Your task to perform on an android device: change the clock style Image 0: 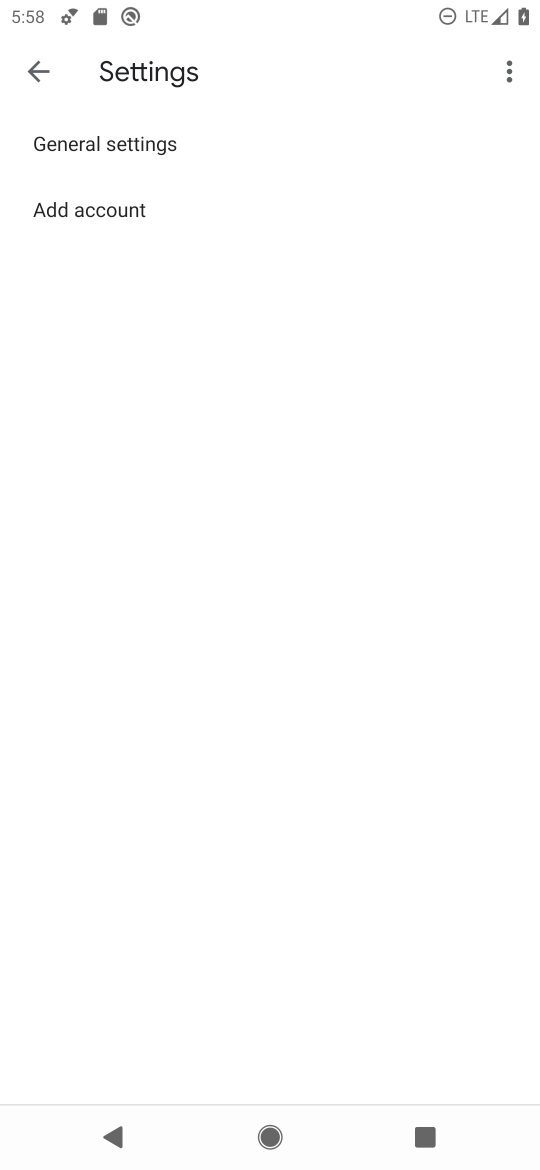
Step 0: press home button
Your task to perform on an android device: change the clock style Image 1: 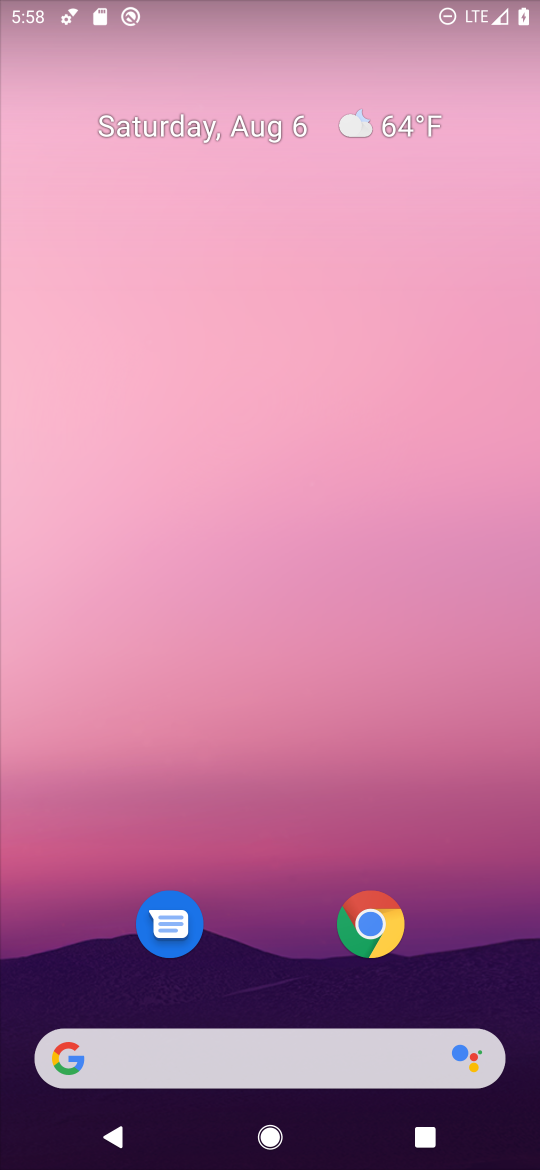
Step 1: drag from (265, 916) to (291, 234)
Your task to perform on an android device: change the clock style Image 2: 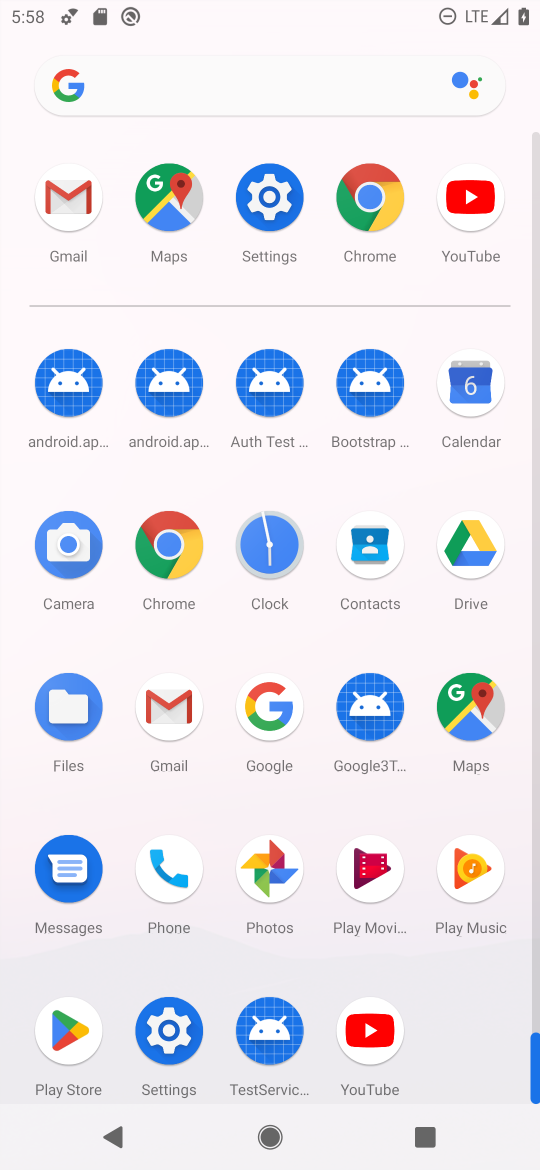
Step 2: click (270, 545)
Your task to perform on an android device: change the clock style Image 3: 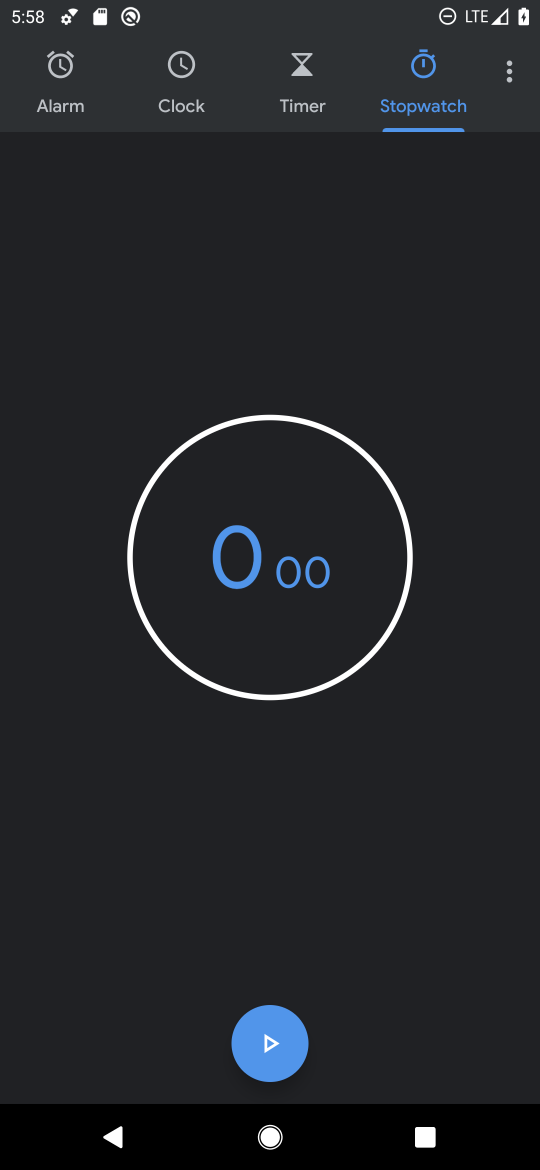
Step 3: click (509, 75)
Your task to perform on an android device: change the clock style Image 4: 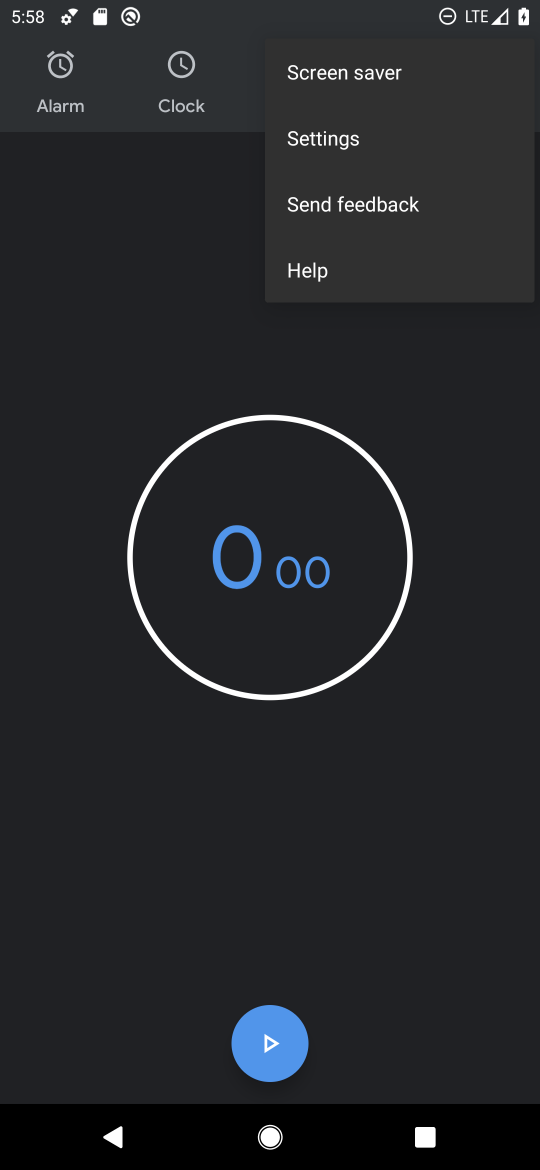
Step 4: click (331, 140)
Your task to perform on an android device: change the clock style Image 5: 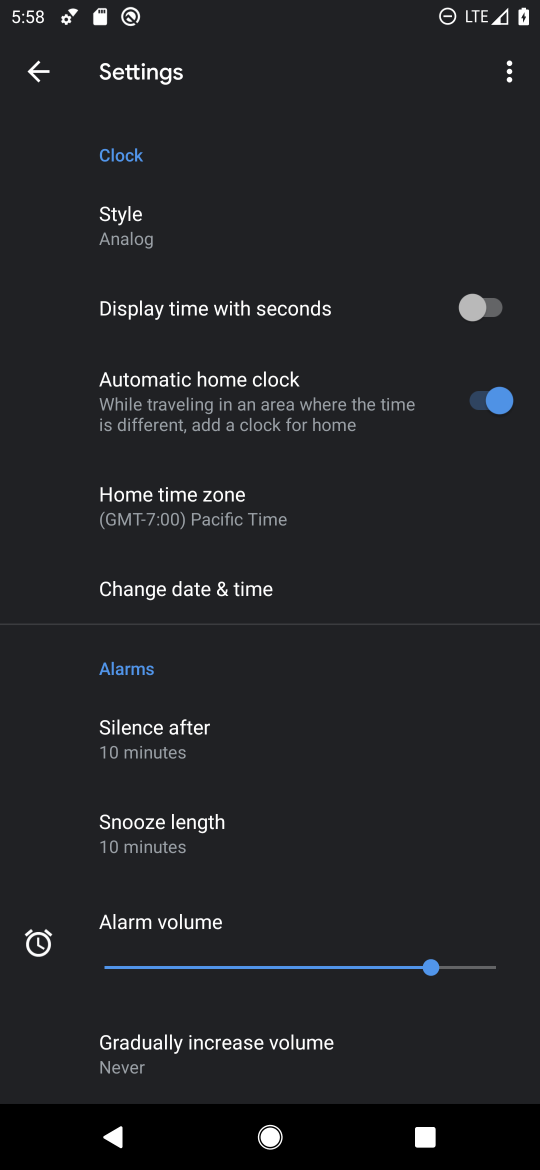
Step 5: click (128, 216)
Your task to perform on an android device: change the clock style Image 6: 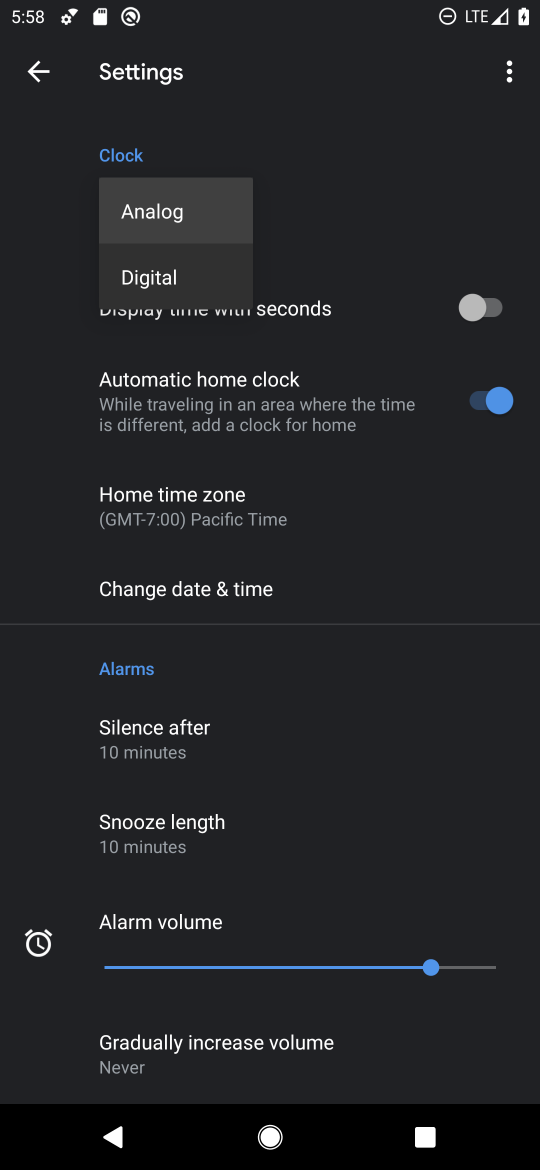
Step 6: click (158, 275)
Your task to perform on an android device: change the clock style Image 7: 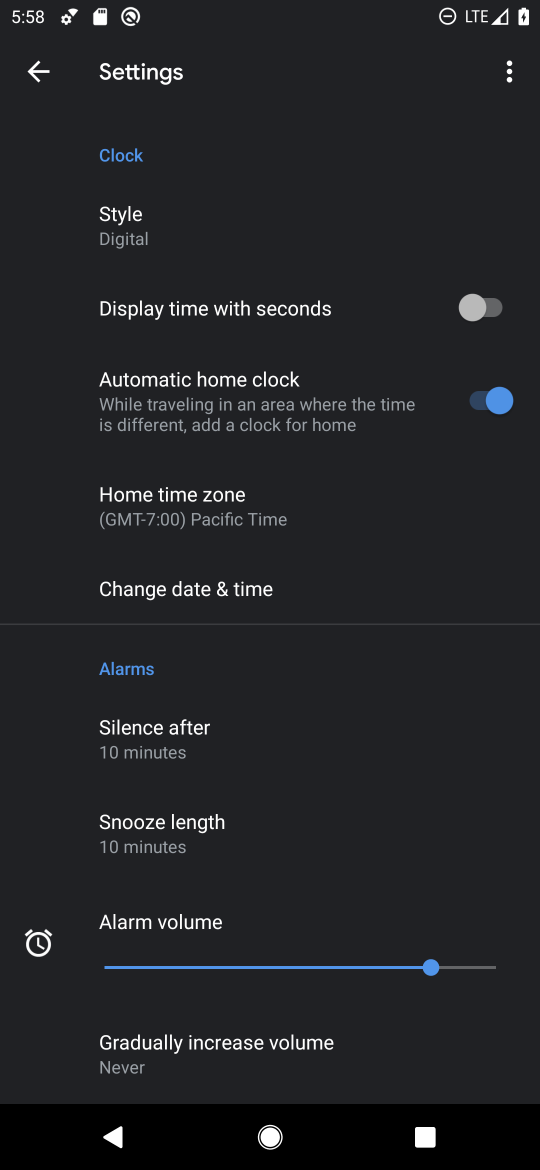
Step 7: task complete